Your task to perform on an android device: What's on my calendar tomorrow? Image 0: 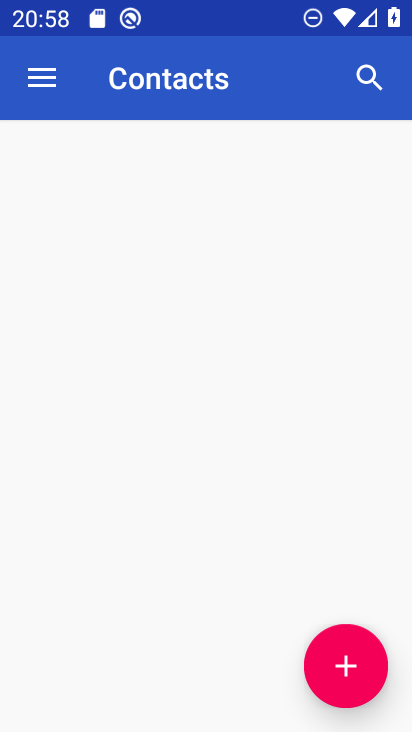
Step 0: drag from (341, 700) to (314, 97)
Your task to perform on an android device: What's on my calendar tomorrow? Image 1: 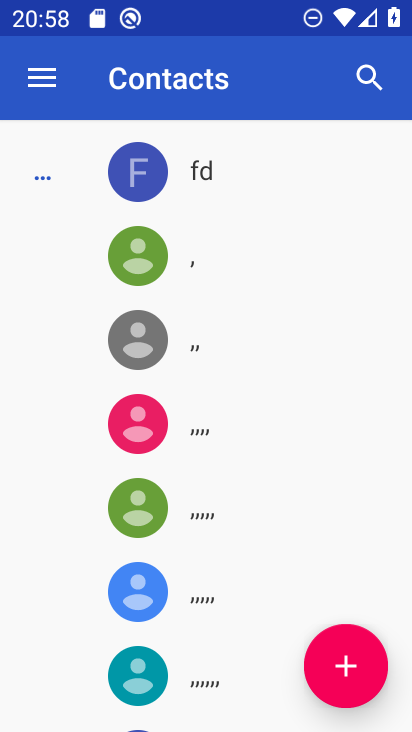
Step 1: press home button
Your task to perform on an android device: What's on my calendar tomorrow? Image 2: 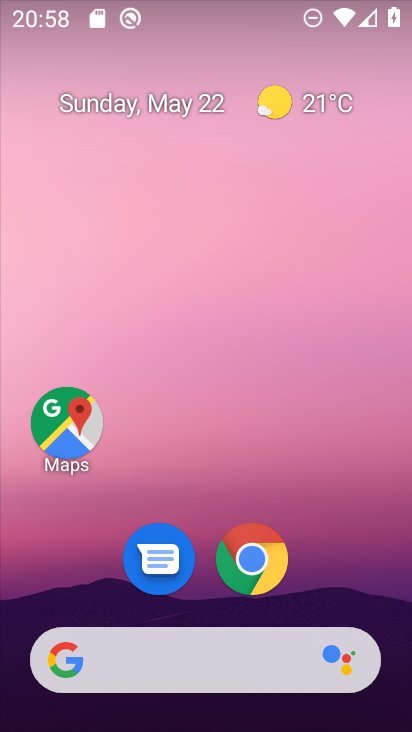
Step 2: drag from (211, 703) to (167, 74)
Your task to perform on an android device: What's on my calendar tomorrow? Image 3: 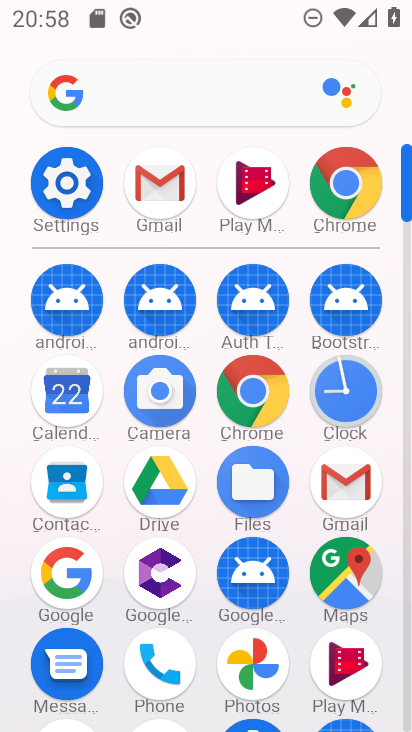
Step 3: click (76, 397)
Your task to perform on an android device: What's on my calendar tomorrow? Image 4: 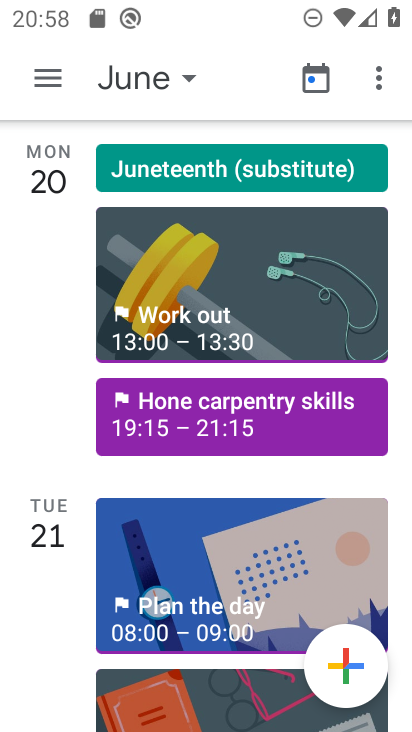
Step 4: click (29, 75)
Your task to perform on an android device: What's on my calendar tomorrow? Image 5: 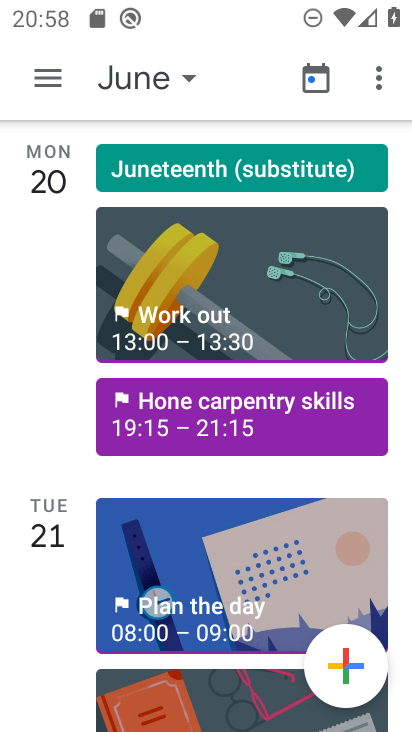
Step 5: click (44, 84)
Your task to perform on an android device: What's on my calendar tomorrow? Image 6: 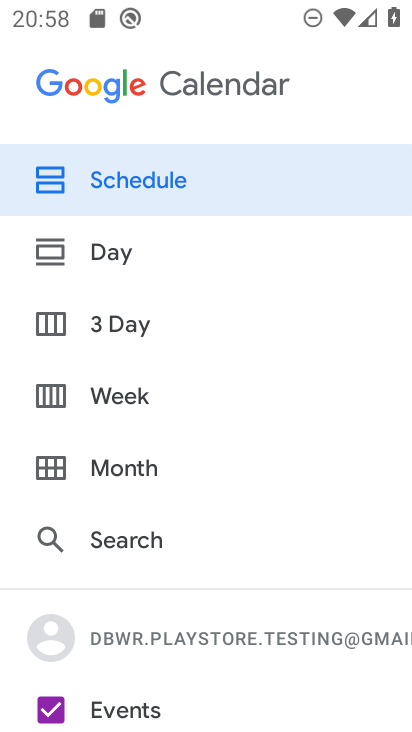
Step 6: click (133, 468)
Your task to perform on an android device: What's on my calendar tomorrow? Image 7: 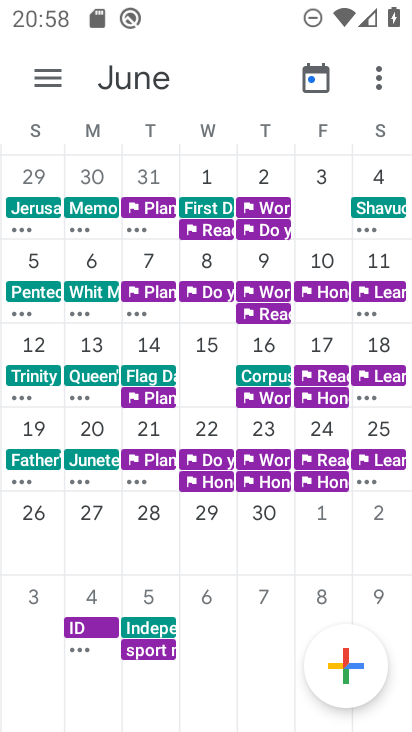
Step 7: drag from (83, 387) to (405, 404)
Your task to perform on an android device: What's on my calendar tomorrow? Image 8: 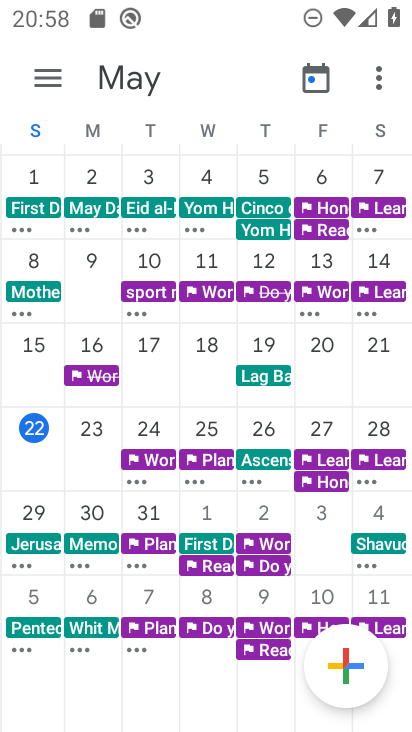
Step 8: click (79, 438)
Your task to perform on an android device: What's on my calendar tomorrow? Image 9: 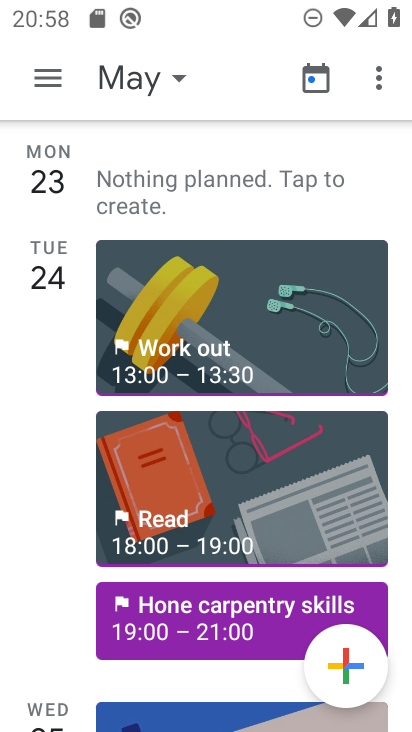
Step 9: task complete